Your task to perform on an android device: change the clock display to analog Image 0: 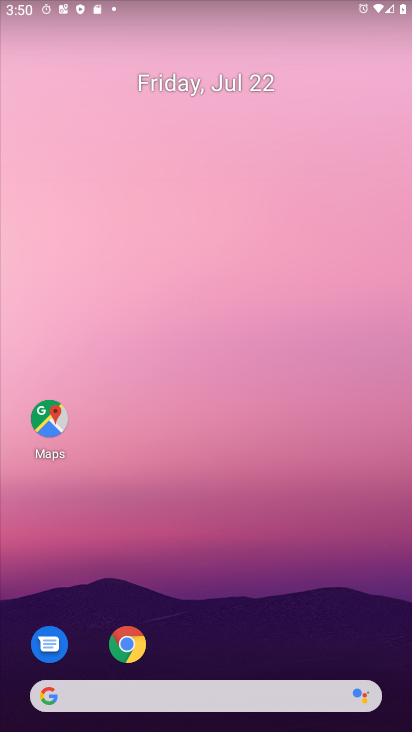
Step 0: press home button
Your task to perform on an android device: change the clock display to analog Image 1: 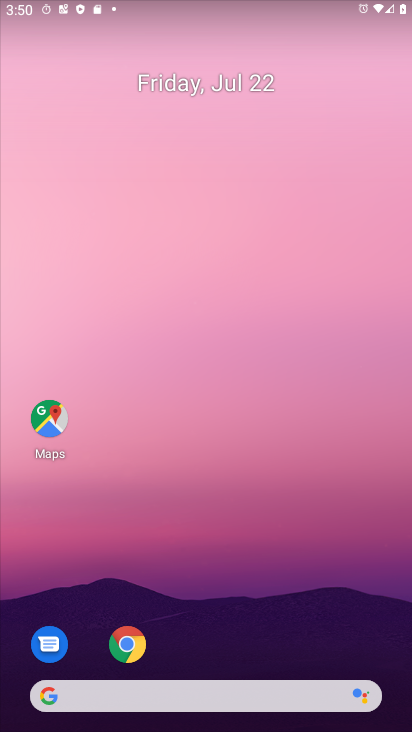
Step 1: drag from (203, 659) to (192, 214)
Your task to perform on an android device: change the clock display to analog Image 2: 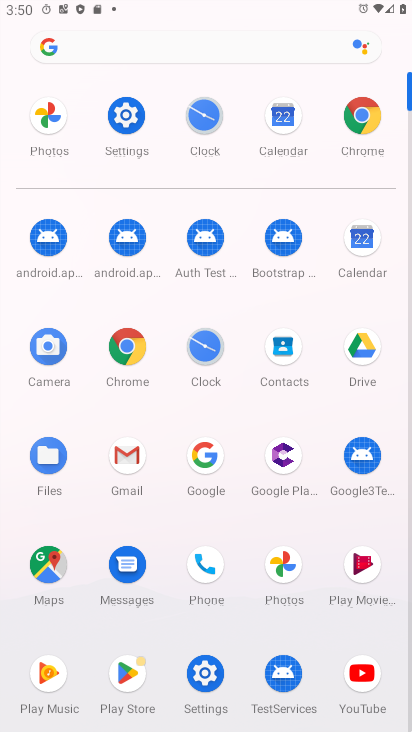
Step 2: click (202, 354)
Your task to perform on an android device: change the clock display to analog Image 3: 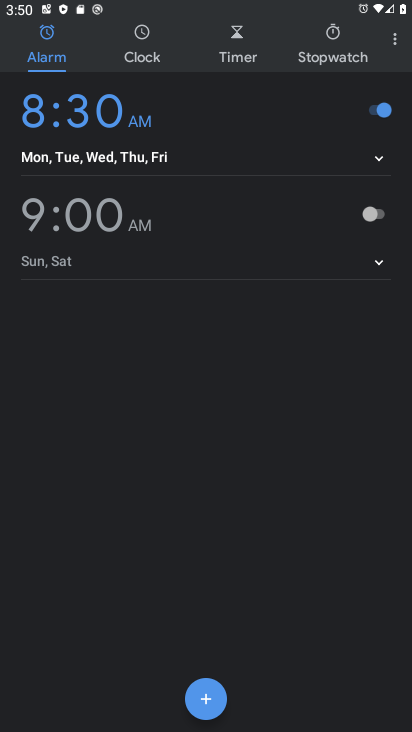
Step 3: click (390, 44)
Your task to perform on an android device: change the clock display to analog Image 4: 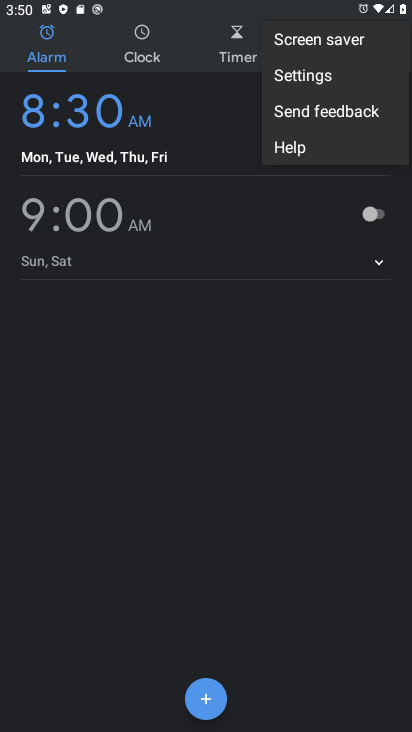
Step 4: click (304, 76)
Your task to perform on an android device: change the clock display to analog Image 5: 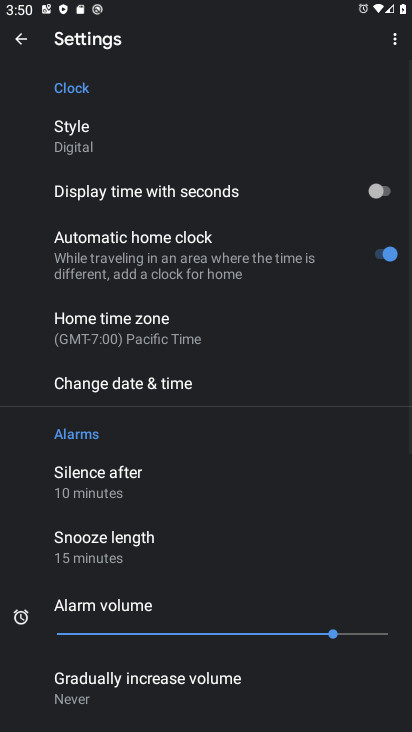
Step 5: click (79, 138)
Your task to perform on an android device: change the clock display to analog Image 6: 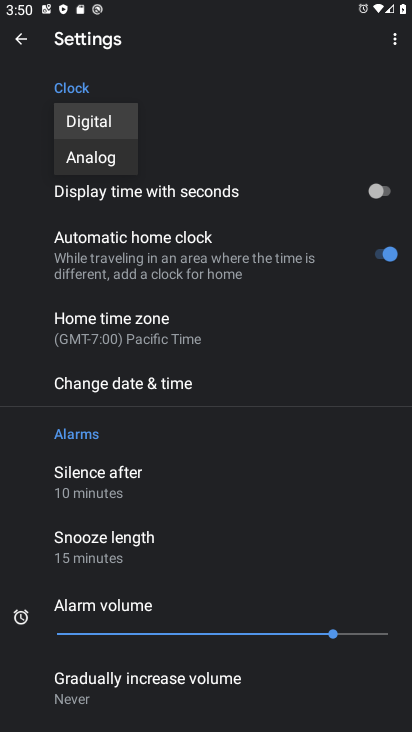
Step 6: click (90, 157)
Your task to perform on an android device: change the clock display to analog Image 7: 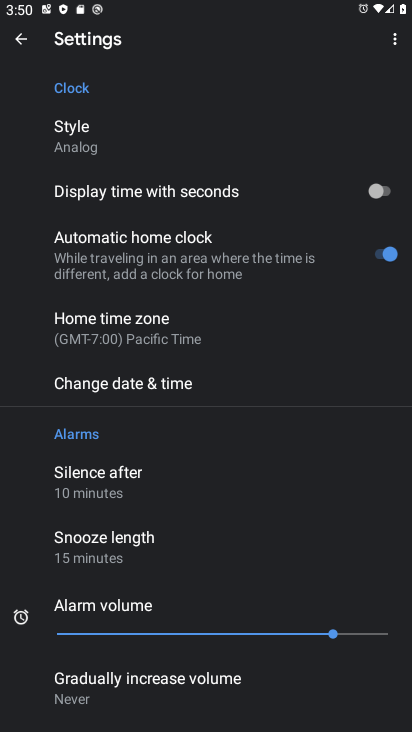
Step 7: task complete